Your task to perform on an android device: Open calendar and show me the first week of next month Image 0: 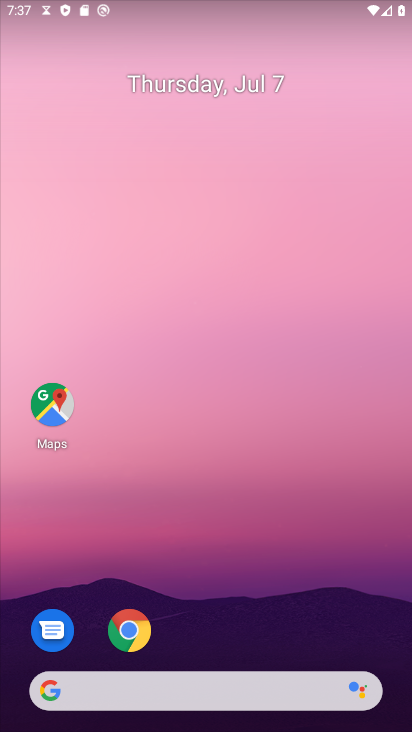
Step 0: drag from (247, 664) to (234, 229)
Your task to perform on an android device: Open calendar and show me the first week of next month Image 1: 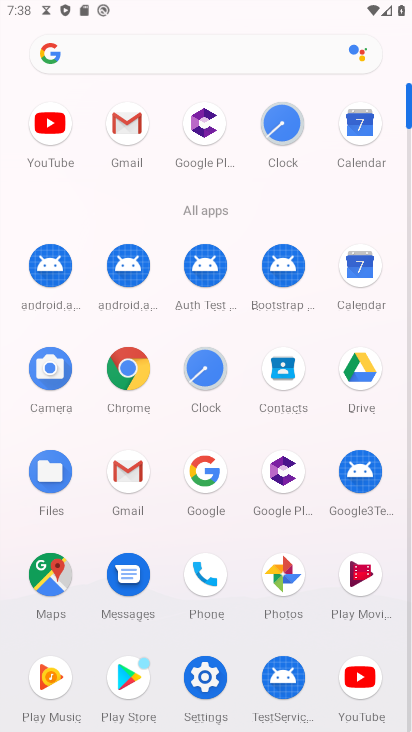
Step 1: click (363, 261)
Your task to perform on an android device: Open calendar and show me the first week of next month Image 2: 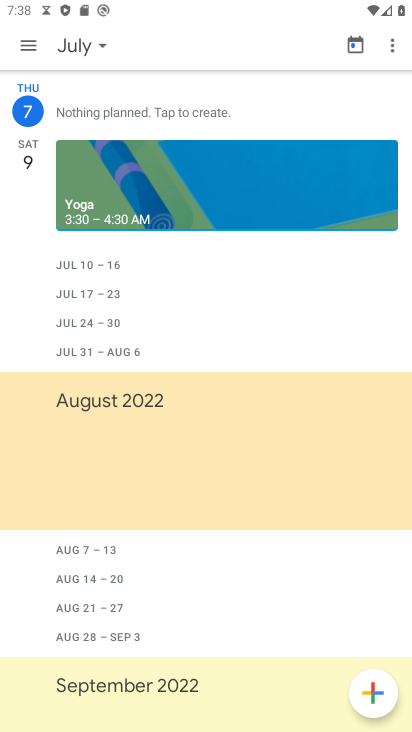
Step 2: click (70, 51)
Your task to perform on an android device: Open calendar and show me the first week of next month Image 3: 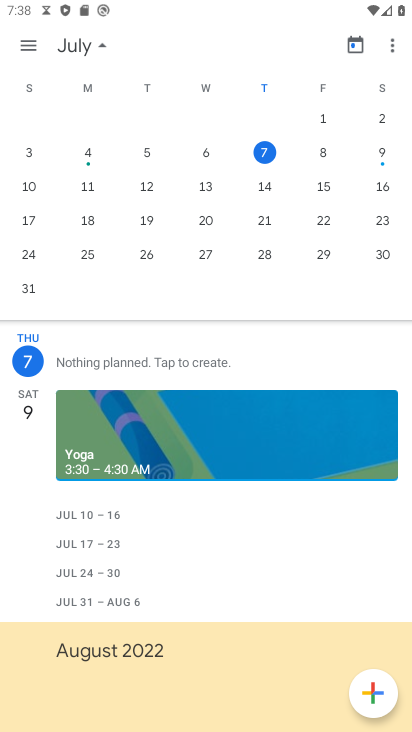
Step 3: drag from (244, 234) to (1, 161)
Your task to perform on an android device: Open calendar and show me the first week of next month Image 4: 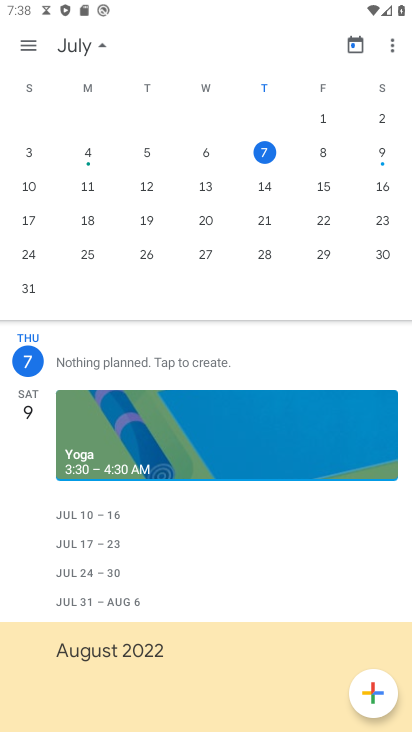
Step 4: drag from (343, 239) to (14, 184)
Your task to perform on an android device: Open calendar and show me the first week of next month Image 5: 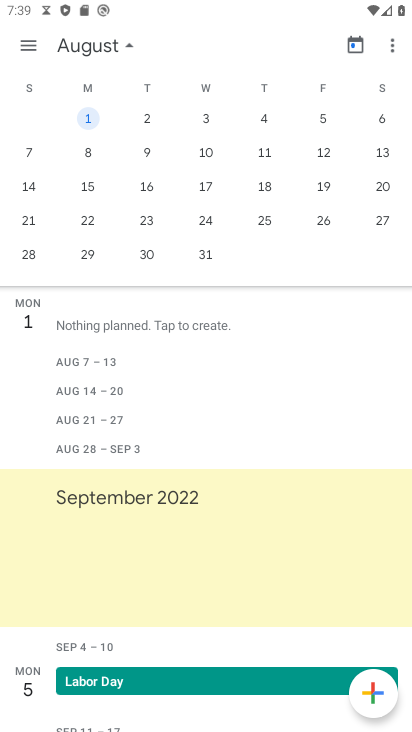
Step 5: click (93, 118)
Your task to perform on an android device: Open calendar and show me the first week of next month Image 6: 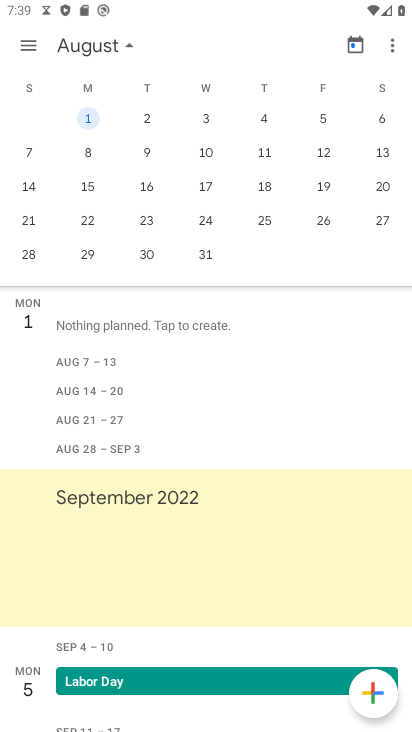
Step 6: click (89, 117)
Your task to perform on an android device: Open calendar and show me the first week of next month Image 7: 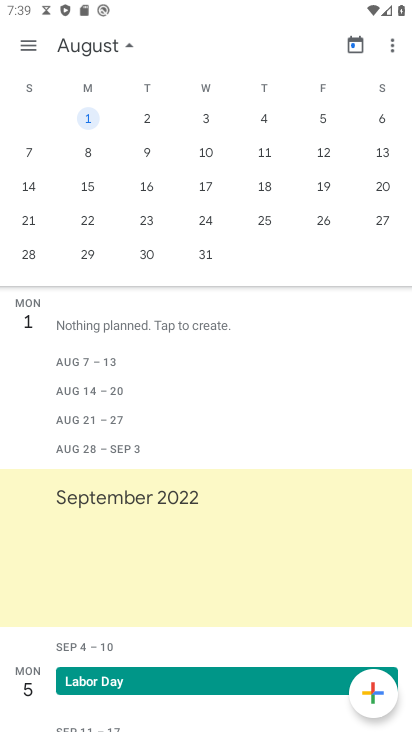
Step 7: task complete